Your task to perform on an android device: Go to calendar. Show me events next week Image 0: 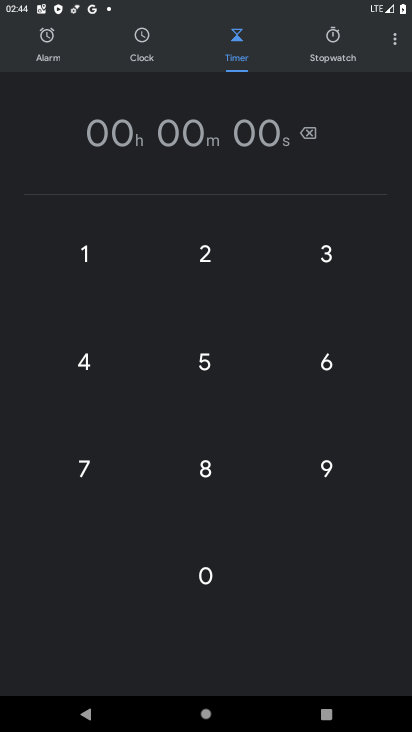
Step 0: press home button
Your task to perform on an android device: Go to calendar. Show me events next week Image 1: 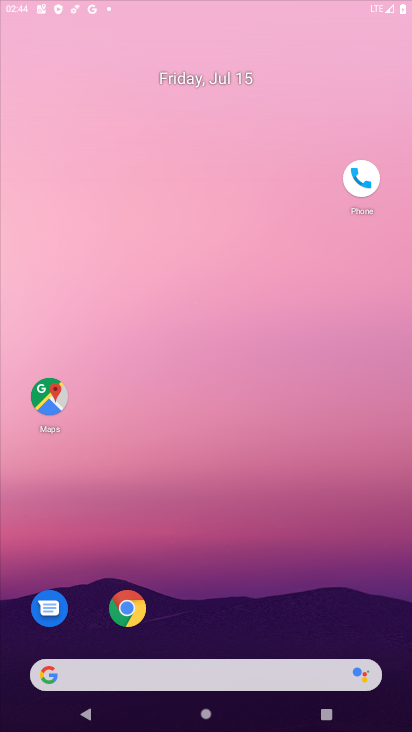
Step 1: drag from (235, 628) to (184, 118)
Your task to perform on an android device: Go to calendar. Show me events next week Image 2: 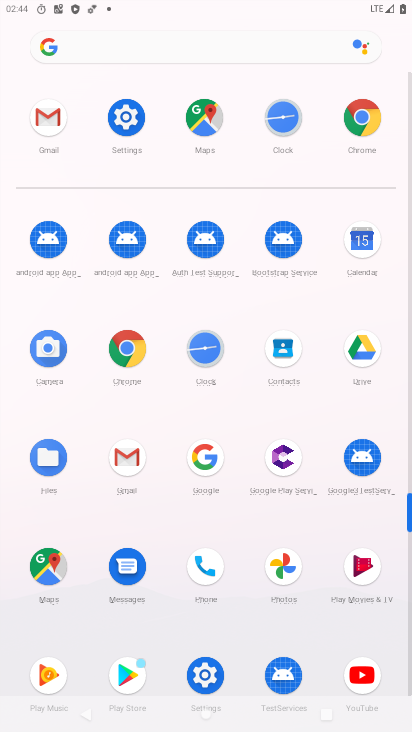
Step 2: drag from (244, 609) to (239, 198)
Your task to perform on an android device: Go to calendar. Show me events next week Image 3: 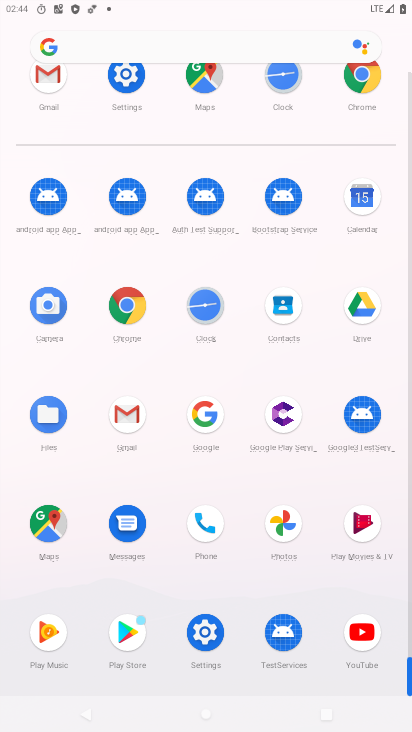
Step 3: drag from (167, 574) to (144, 328)
Your task to perform on an android device: Go to calendar. Show me events next week Image 4: 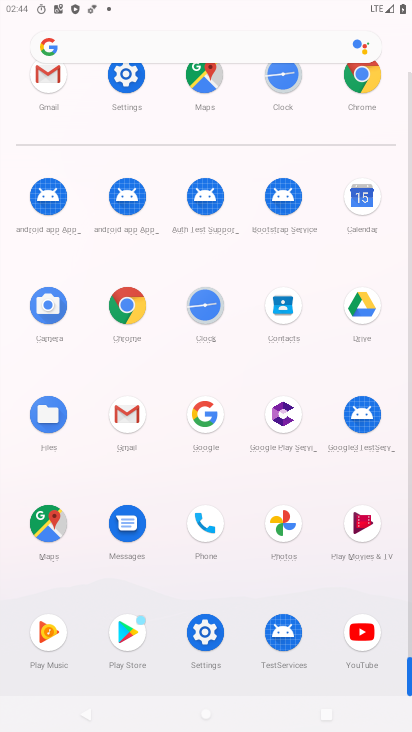
Step 4: click (364, 185)
Your task to perform on an android device: Go to calendar. Show me events next week Image 5: 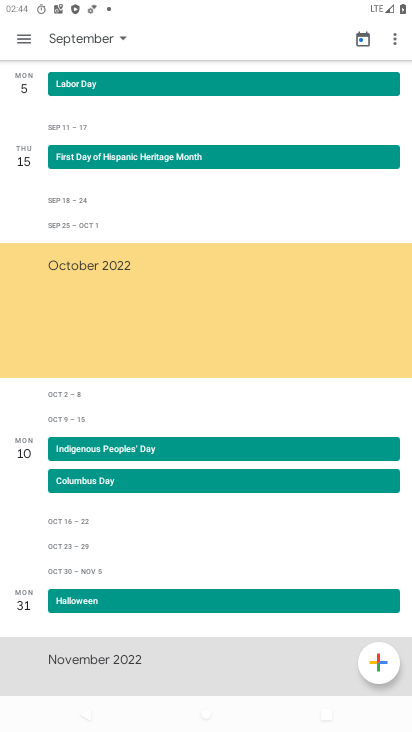
Step 5: click (87, 33)
Your task to perform on an android device: Go to calendar. Show me events next week Image 6: 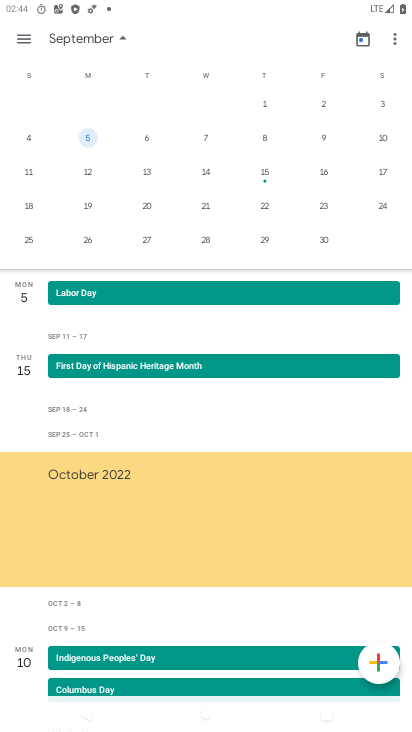
Step 6: click (370, 40)
Your task to perform on an android device: Go to calendar. Show me events next week Image 7: 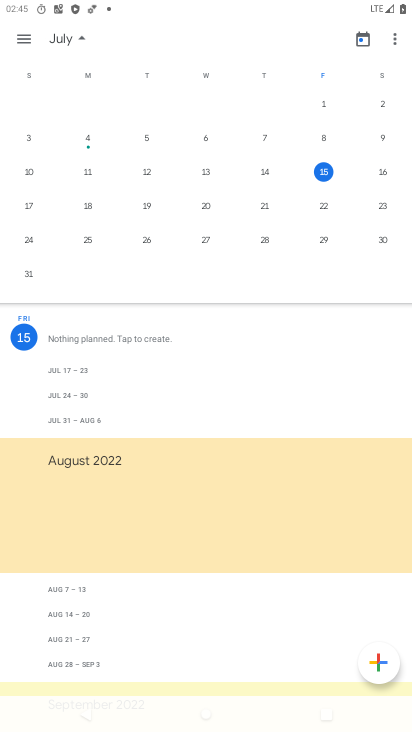
Step 7: click (381, 174)
Your task to perform on an android device: Go to calendar. Show me events next week Image 8: 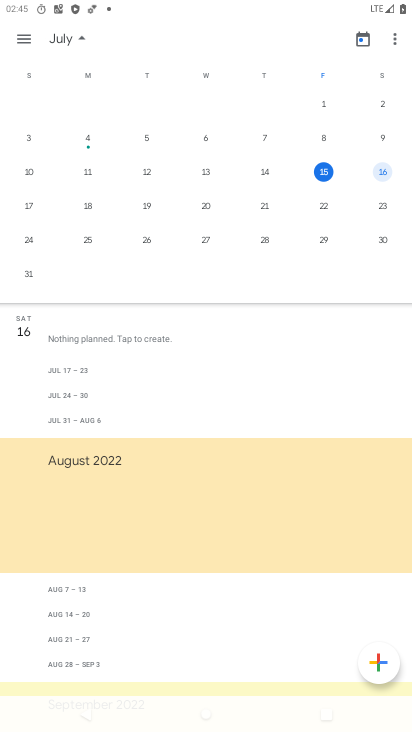
Step 8: task complete